Your task to perform on an android device: check storage Image 0: 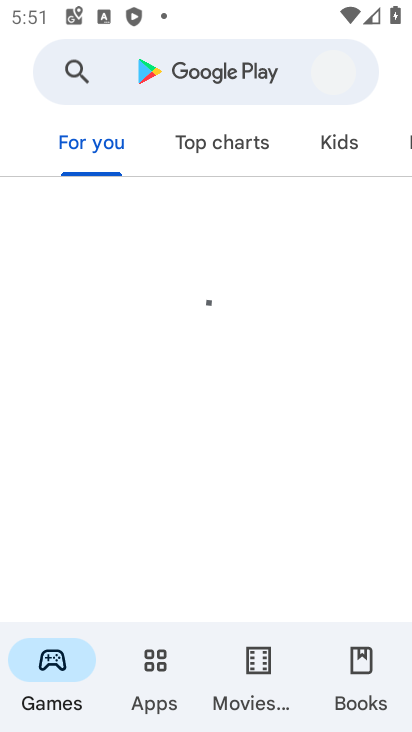
Step 0: press home button
Your task to perform on an android device: check storage Image 1: 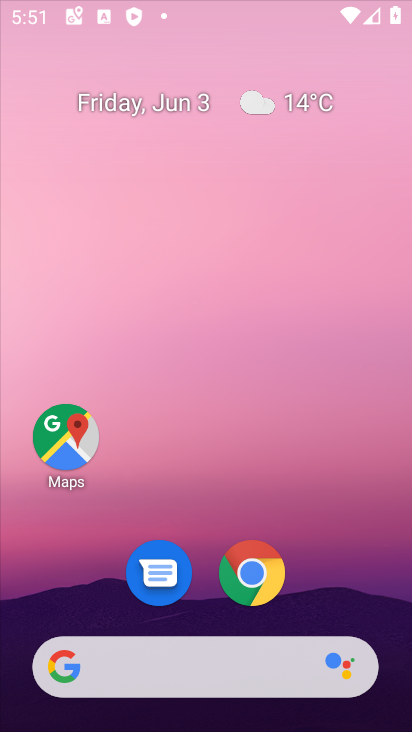
Step 1: drag from (238, 679) to (262, 21)
Your task to perform on an android device: check storage Image 2: 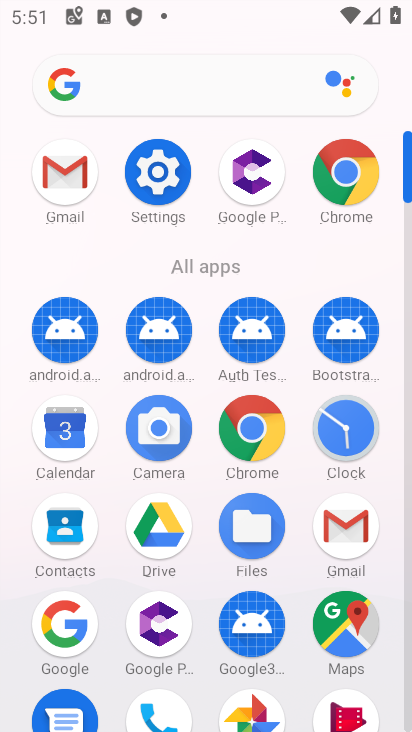
Step 2: click (144, 181)
Your task to perform on an android device: check storage Image 3: 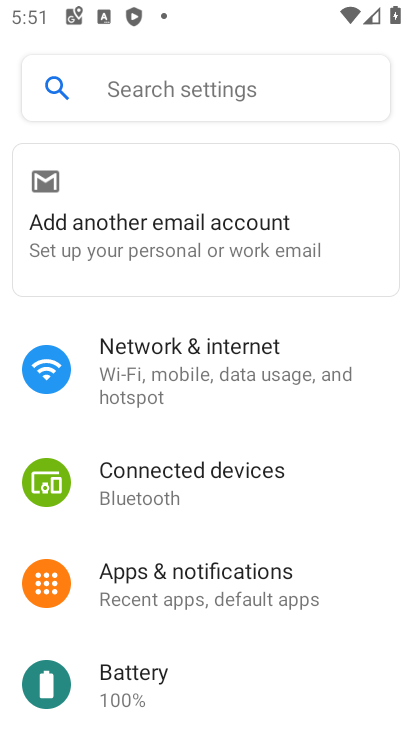
Step 3: drag from (236, 646) to (291, 13)
Your task to perform on an android device: check storage Image 4: 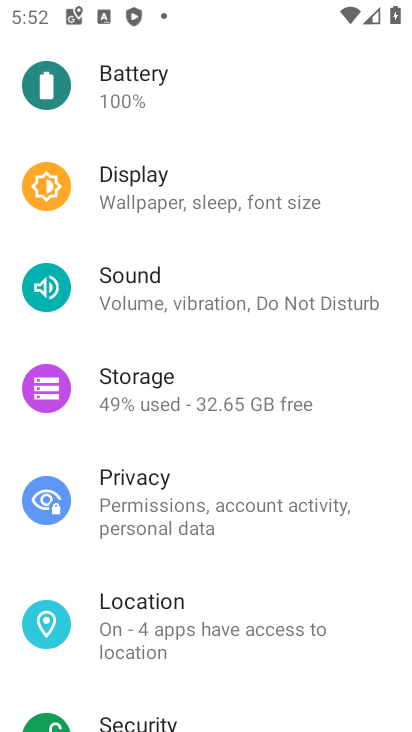
Step 4: click (158, 404)
Your task to perform on an android device: check storage Image 5: 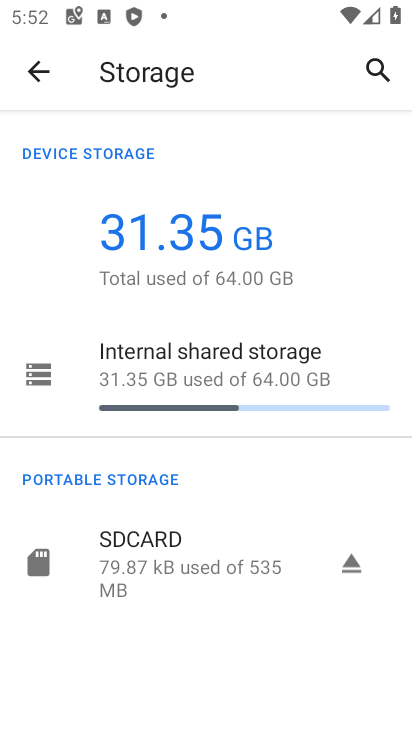
Step 5: task complete